Your task to perform on an android device: add a label to a message in the gmail app Image 0: 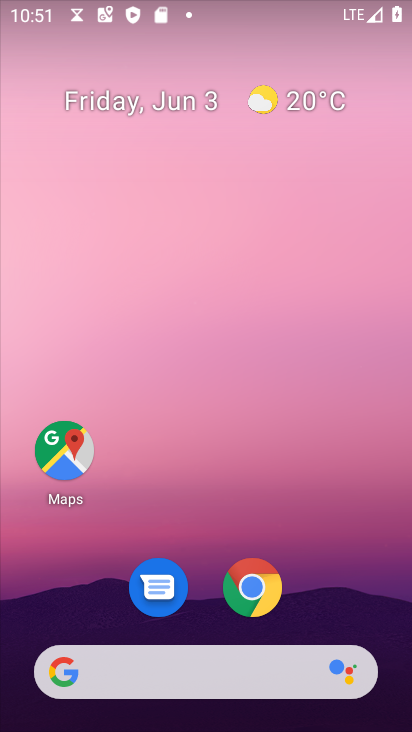
Step 0: drag from (359, 544) to (289, 0)
Your task to perform on an android device: add a label to a message in the gmail app Image 1: 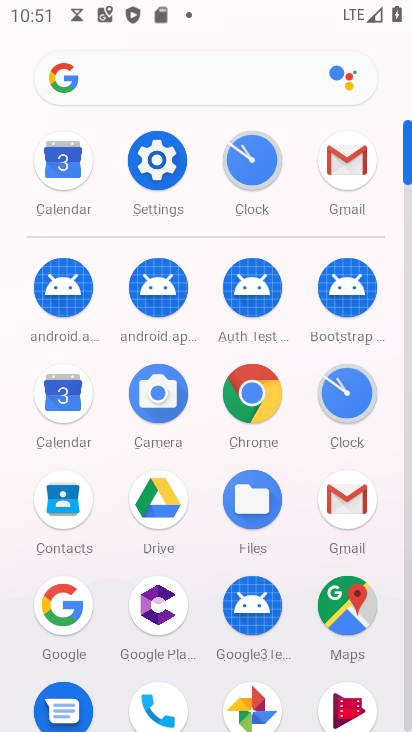
Step 1: click (347, 505)
Your task to perform on an android device: add a label to a message in the gmail app Image 2: 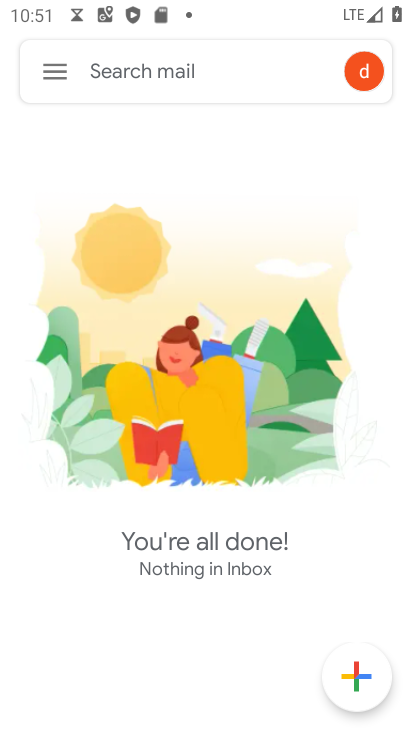
Step 2: click (51, 71)
Your task to perform on an android device: add a label to a message in the gmail app Image 3: 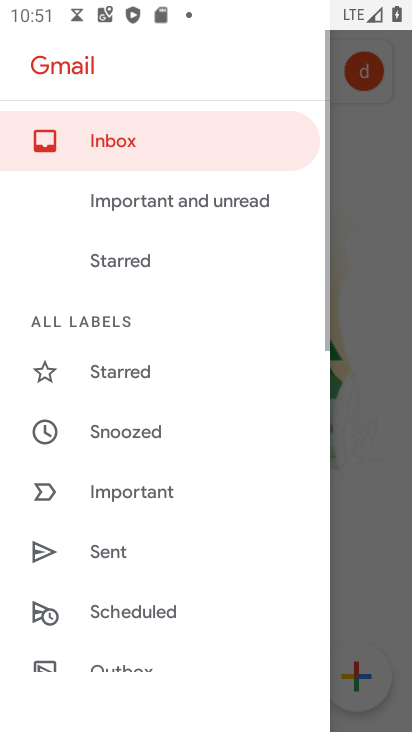
Step 3: click (189, 128)
Your task to perform on an android device: add a label to a message in the gmail app Image 4: 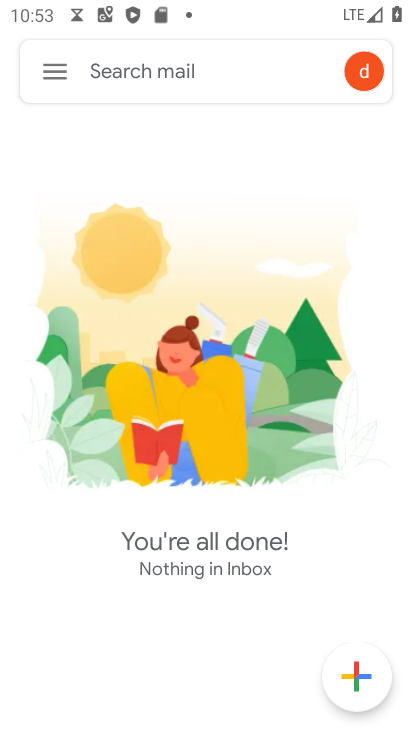
Step 4: task complete